Your task to perform on an android device: turn off improve location accuracy Image 0: 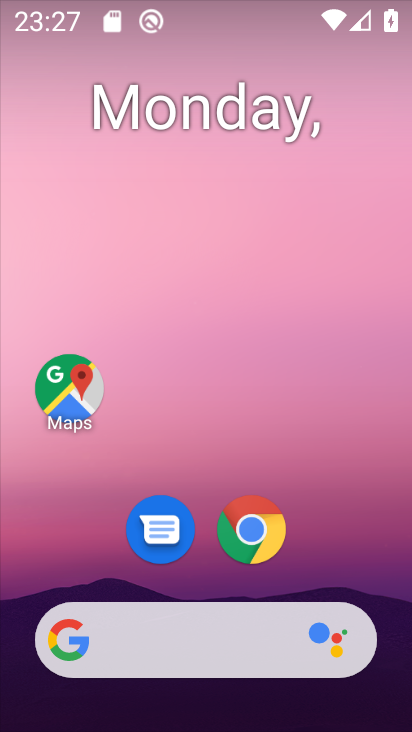
Step 0: drag from (351, 539) to (279, 69)
Your task to perform on an android device: turn off improve location accuracy Image 1: 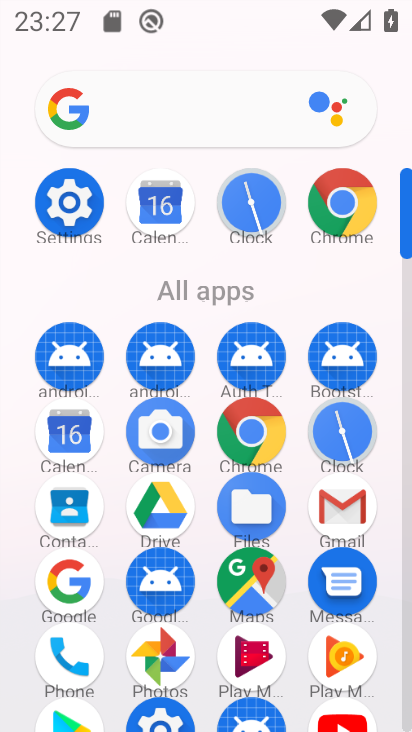
Step 1: click (77, 217)
Your task to perform on an android device: turn off improve location accuracy Image 2: 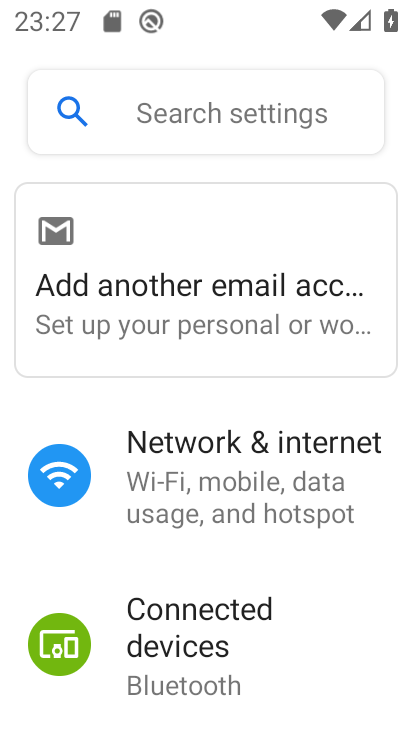
Step 2: drag from (240, 571) to (214, 171)
Your task to perform on an android device: turn off improve location accuracy Image 3: 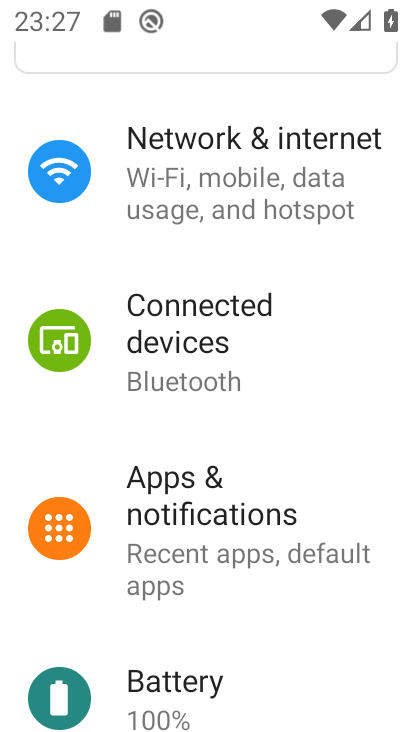
Step 3: drag from (319, 615) to (344, 371)
Your task to perform on an android device: turn off improve location accuracy Image 4: 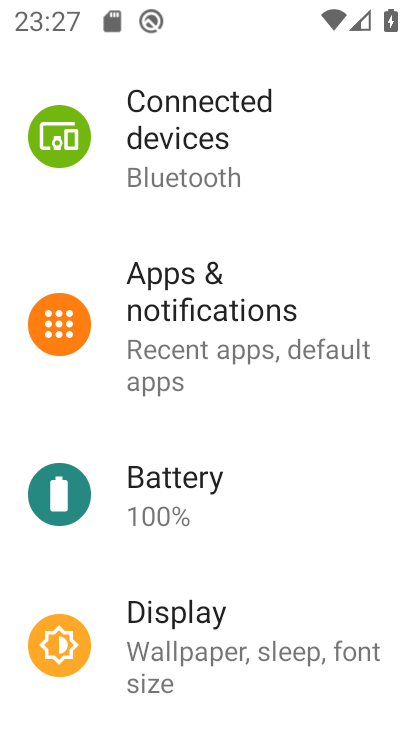
Step 4: drag from (297, 550) to (265, 122)
Your task to perform on an android device: turn off improve location accuracy Image 5: 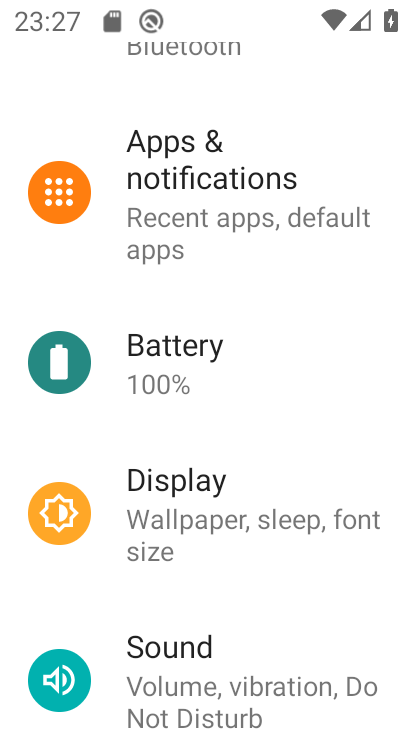
Step 5: drag from (284, 590) to (332, 233)
Your task to perform on an android device: turn off improve location accuracy Image 6: 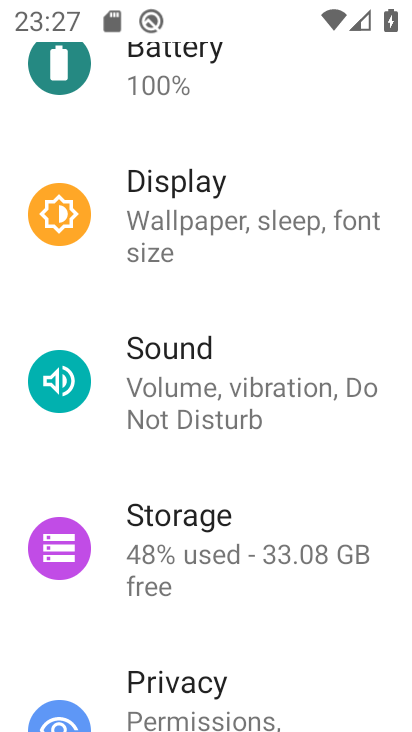
Step 6: drag from (278, 630) to (280, 225)
Your task to perform on an android device: turn off improve location accuracy Image 7: 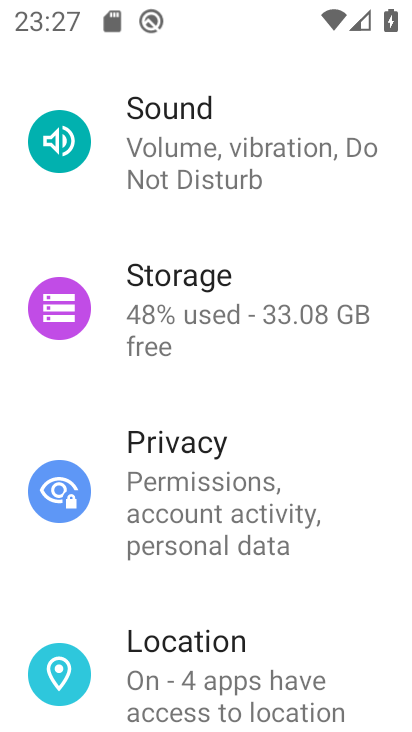
Step 7: click (257, 668)
Your task to perform on an android device: turn off improve location accuracy Image 8: 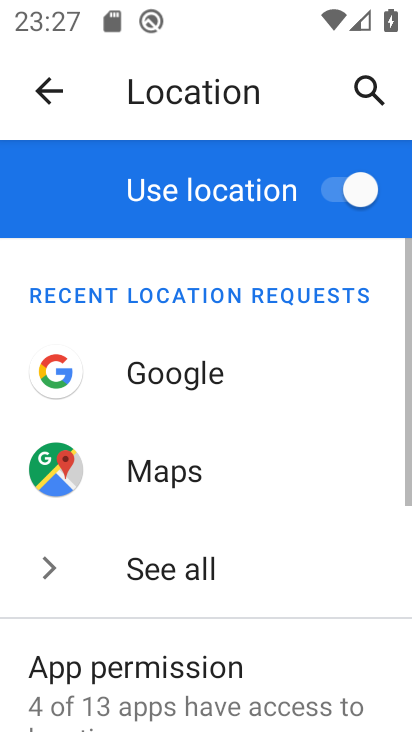
Step 8: drag from (273, 623) to (297, 273)
Your task to perform on an android device: turn off improve location accuracy Image 9: 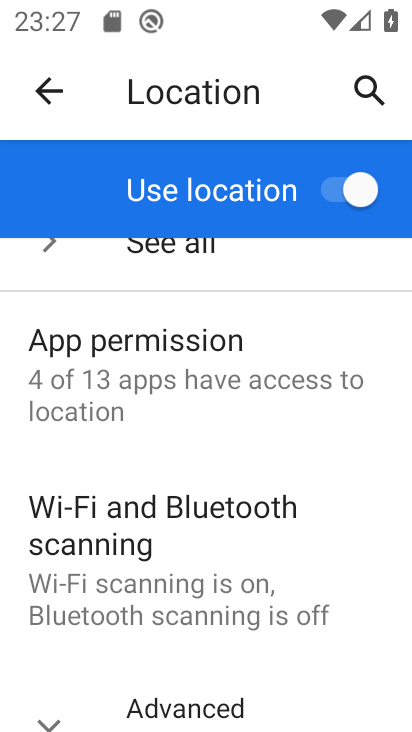
Step 9: drag from (325, 661) to (341, 405)
Your task to perform on an android device: turn off improve location accuracy Image 10: 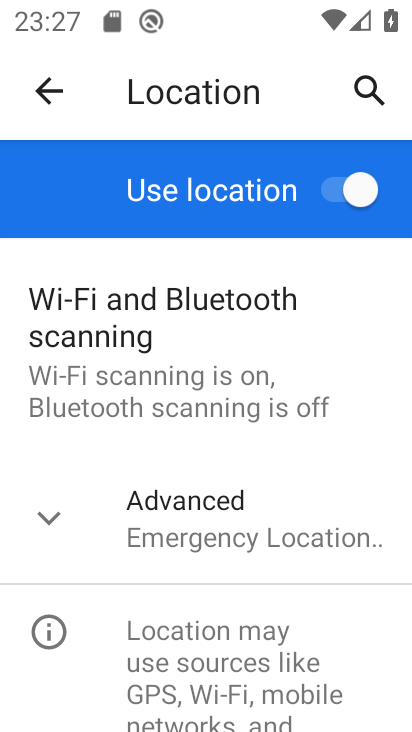
Step 10: click (265, 520)
Your task to perform on an android device: turn off improve location accuracy Image 11: 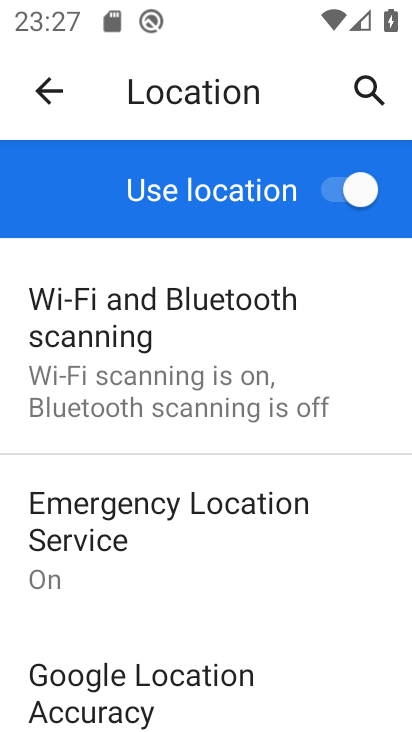
Step 11: drag from (308, 655) to (316, 363)
Your task to perform on an android device: turn off improve location accuracy Image 12: 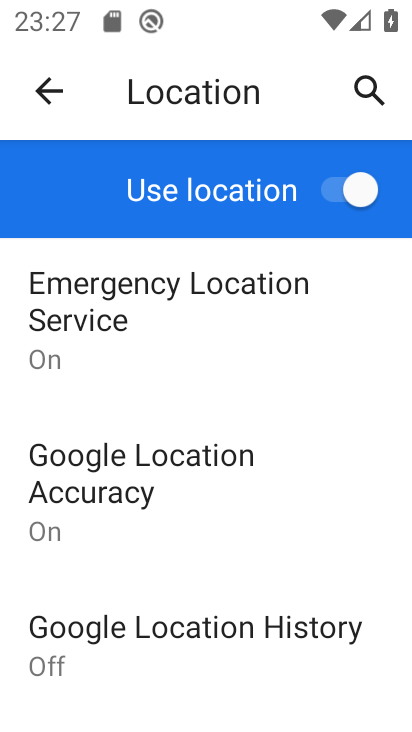
Step 12: click (133, 470)
Your task to perform on an android device: turn off improve location accuracy Image 13: 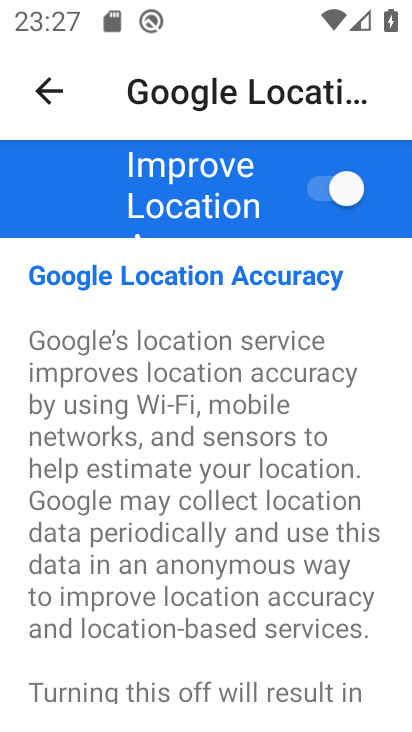
Step 13: click (316, 189)
Your task to perform on an android device: turn off improve location accuracy Image 14: 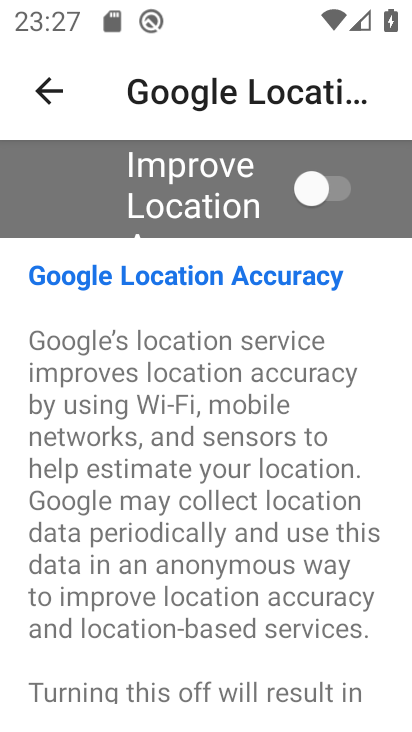
Step 14: task complete